Your task to perform on an android device: What's the weather like in Moscow? Image 0: 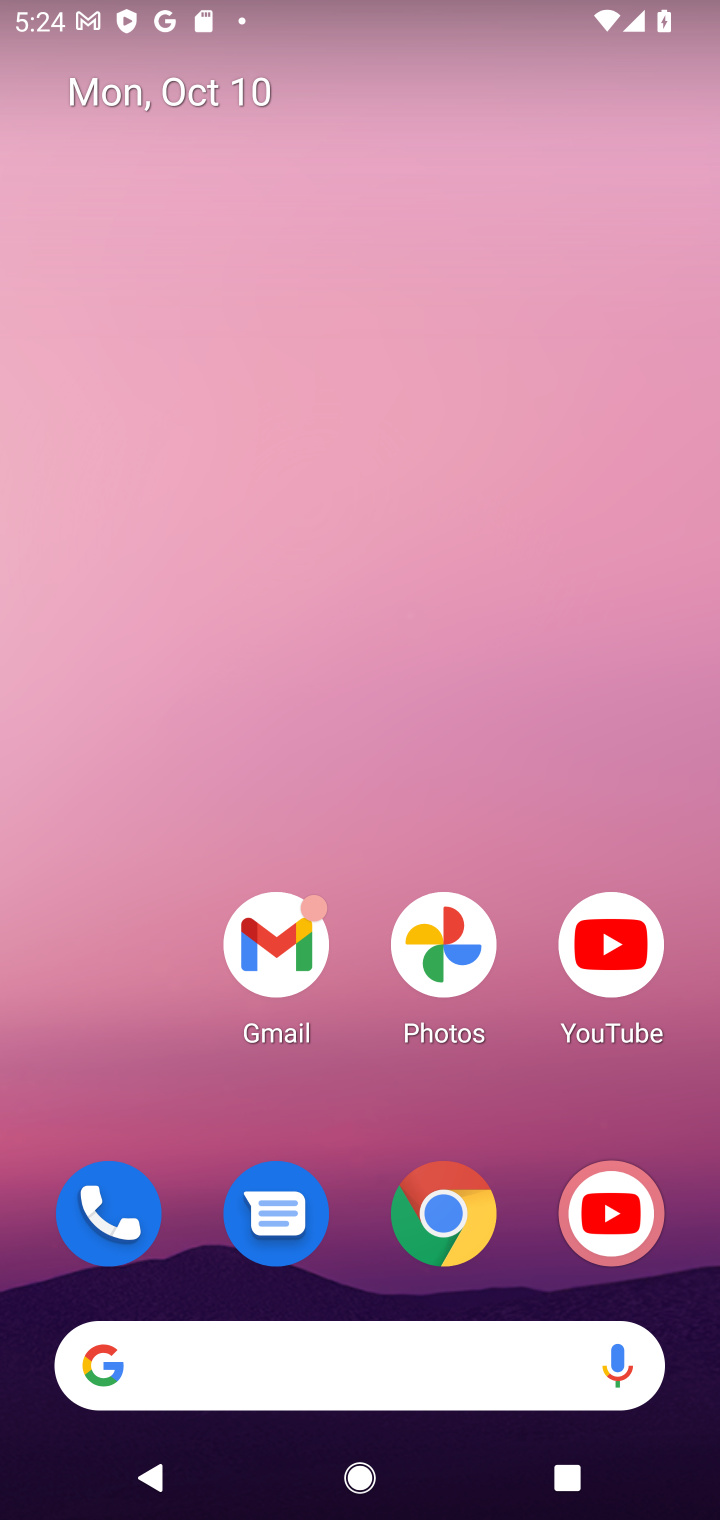
Step 0: click (362, 1369)
Your task to perform on an android device: What's the weather like in Moscow? Image 1: 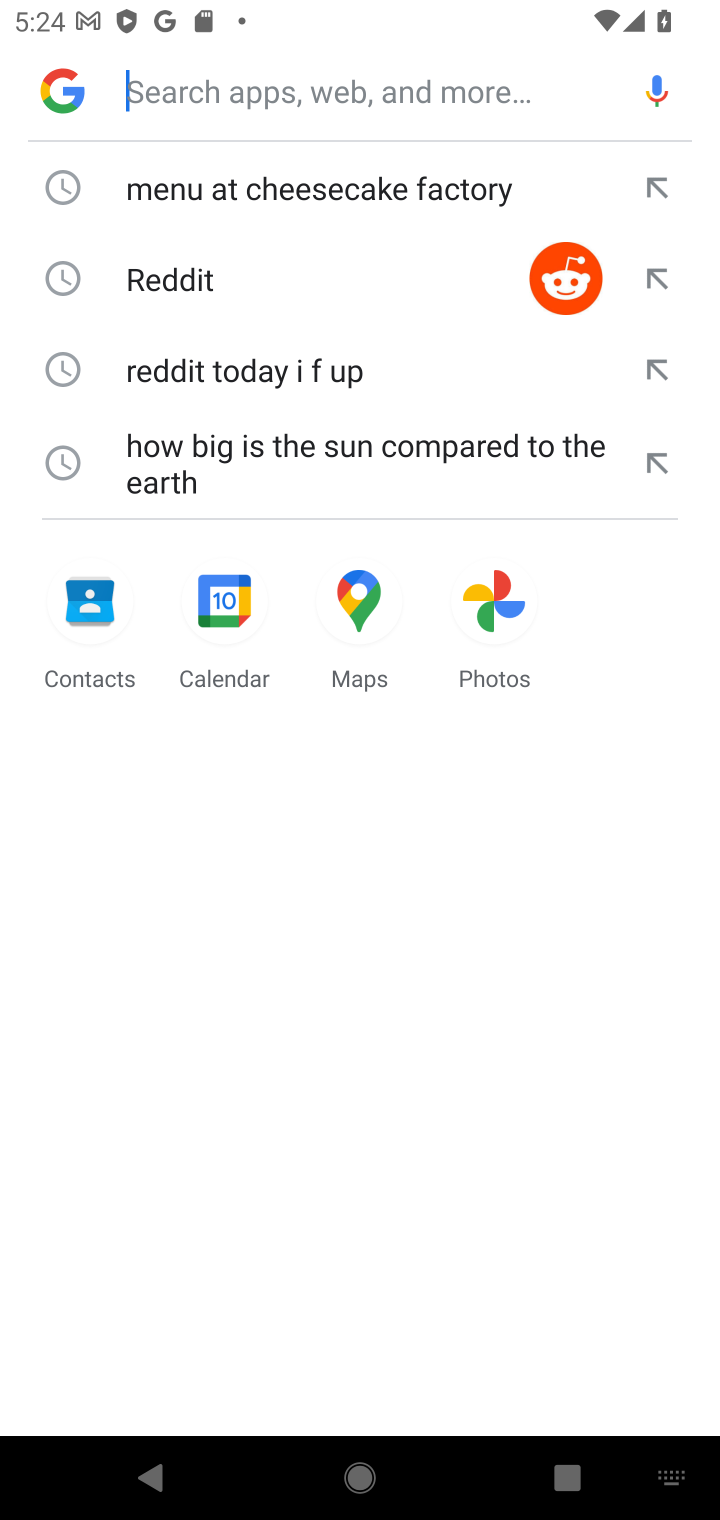
Step 1: type " weather like in Moscow"
Your task to perform on an android device: What's the weather like in Moscow? Image 2: 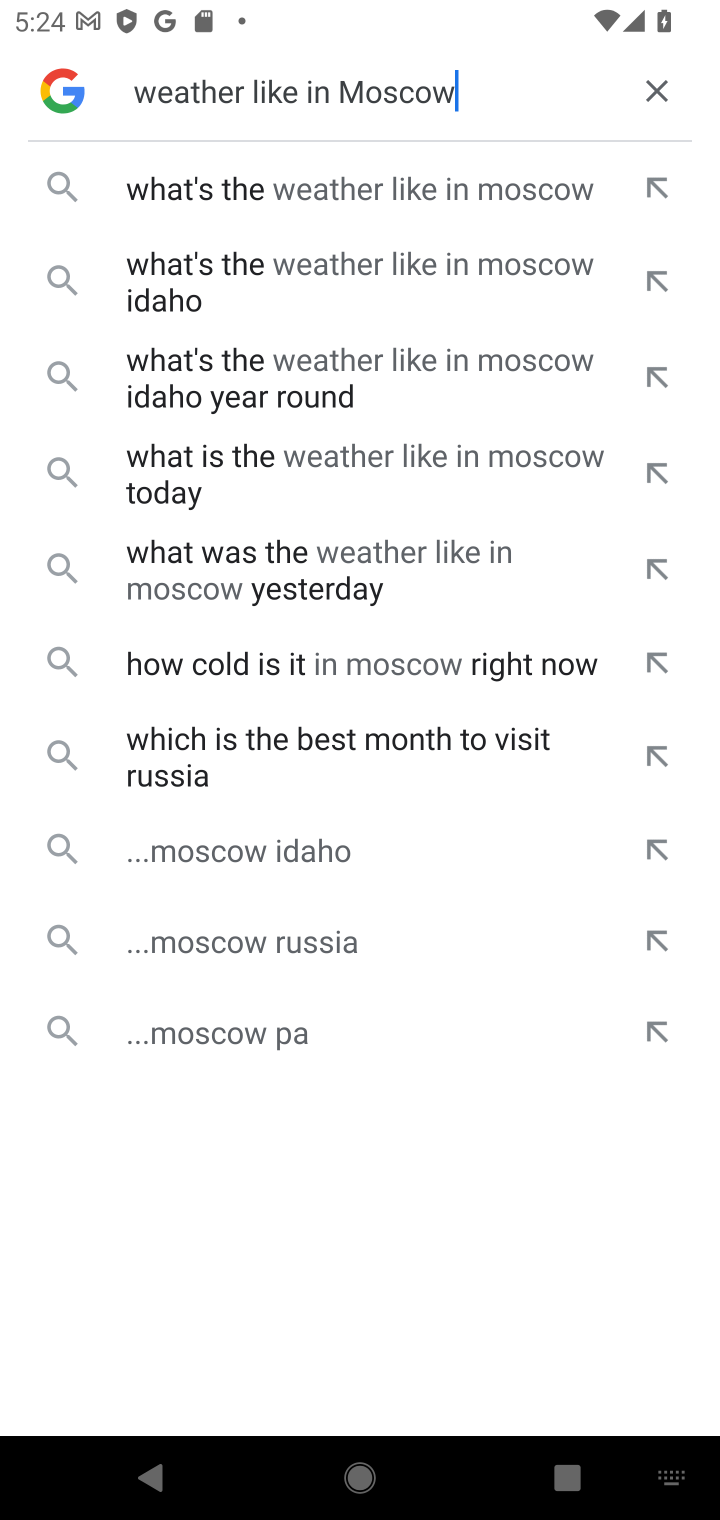
Step 2: click (408, 196)
Your task to perform on an android device: What's the weather like in Moscow? Image 3: 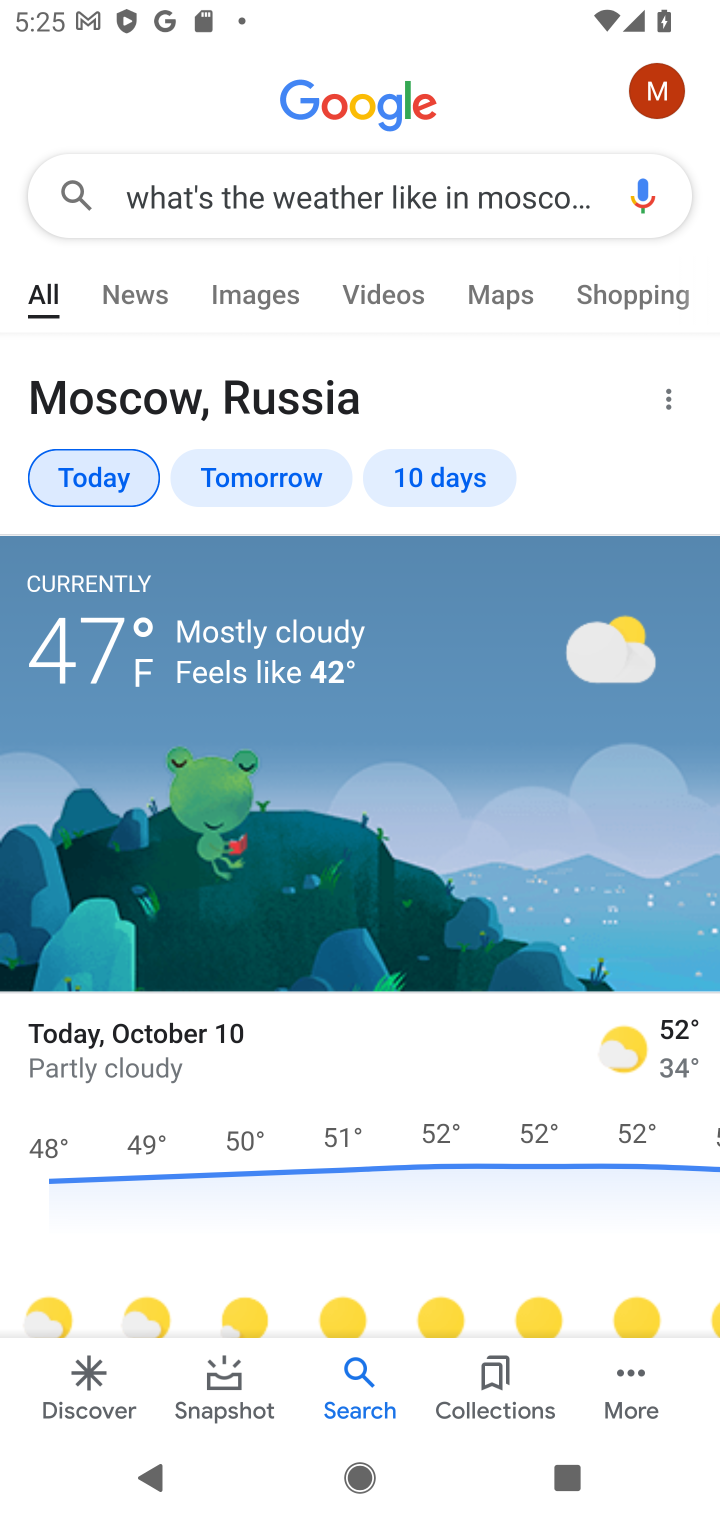
Step 3: task complete